Your task to perform on an android device: What's the news in Laos? Image 0: 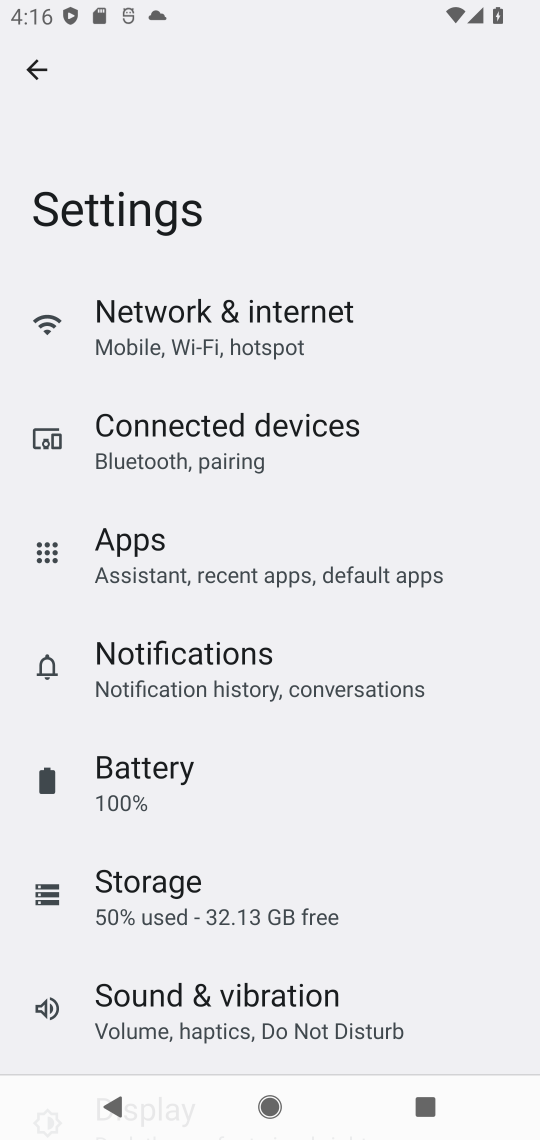
Step 0: press home button
Your task to perform on an android device: What's the news in Laos? Image 1: 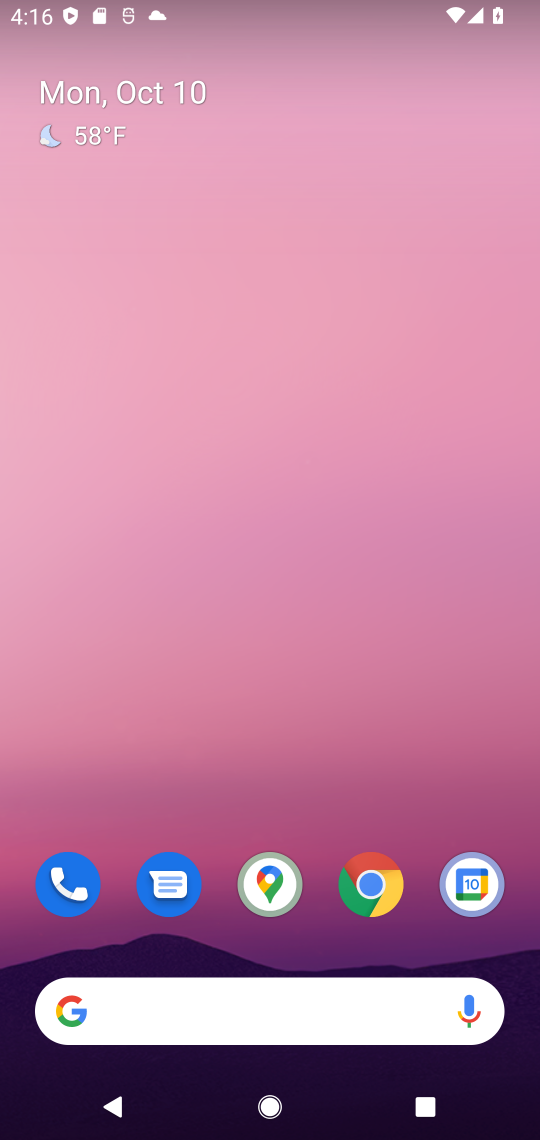
Step 1: click (367, 882)
Your task to perform on an android device: What's the news in Laos? Image 2: 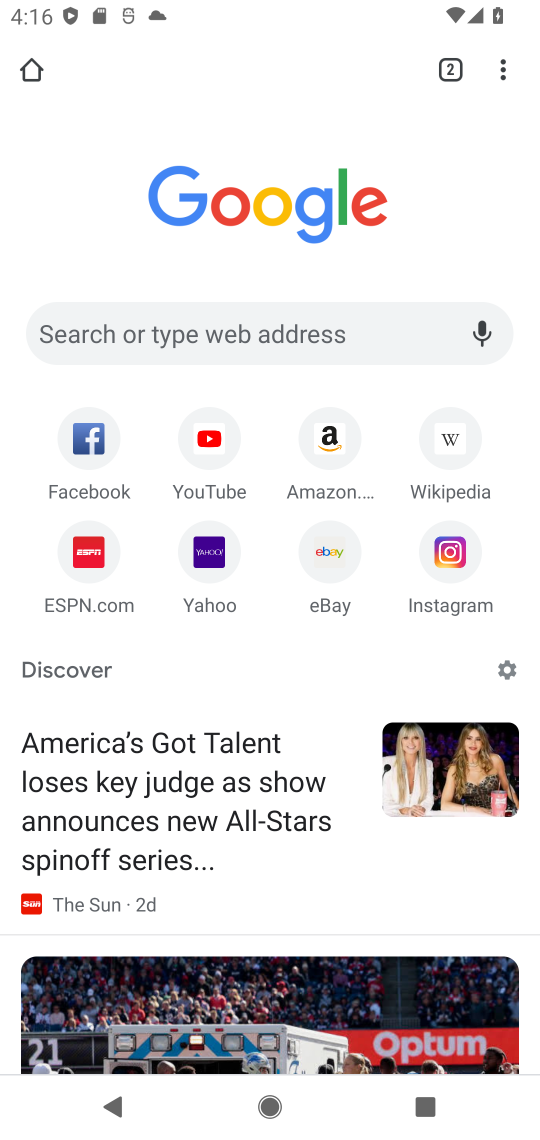
Step 2: click (240, 337)
Your task to perform on an android device: What's the news in Laos? Image 3: 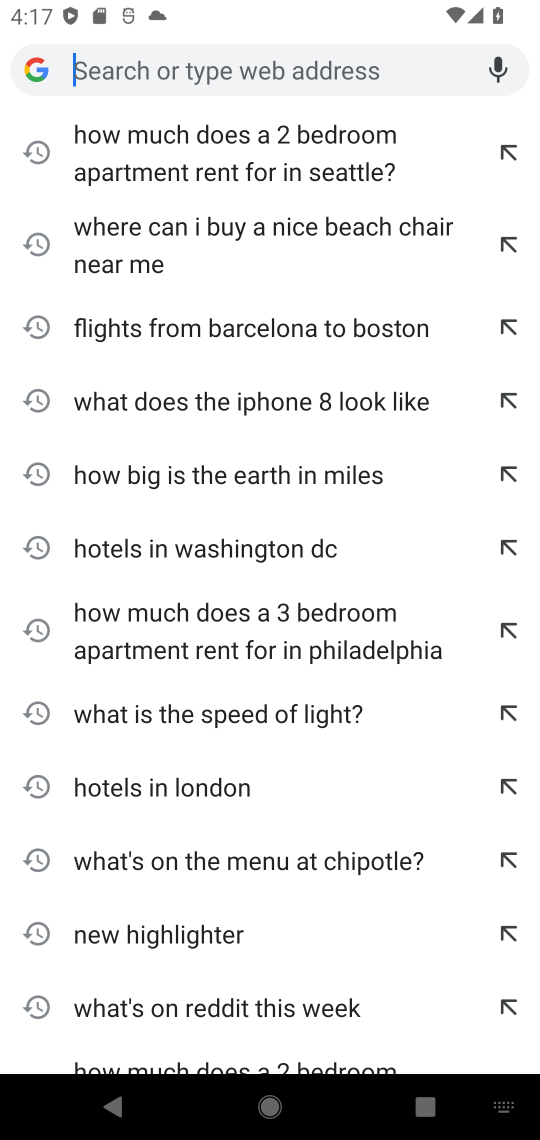
Step 3: type "What's the news in Laos?"
Your task to perform on an android device: What's the news in Laos? Image 4: 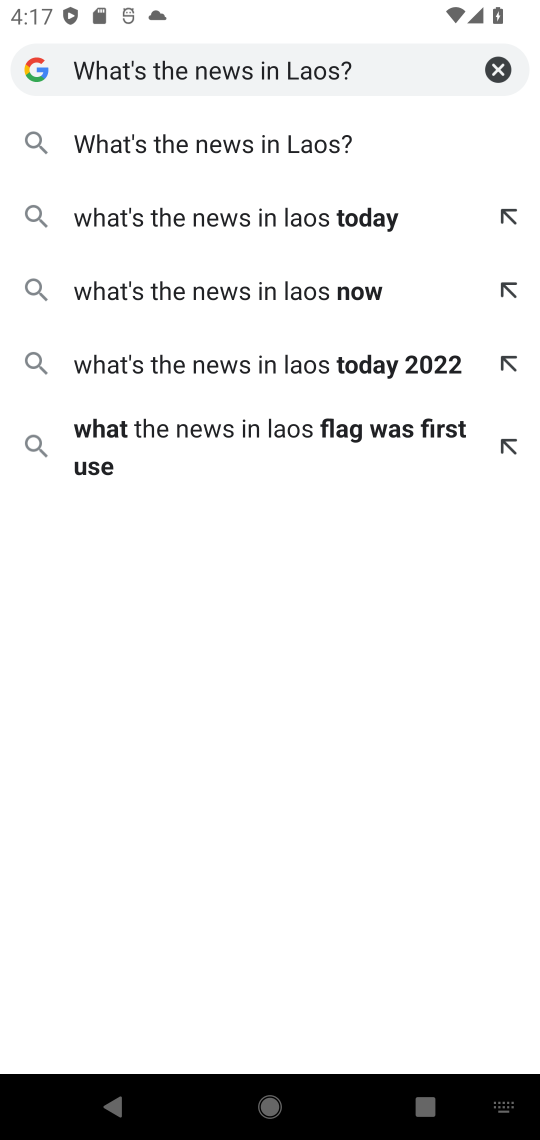
Step 4: click (288, 153)
Your task to perform on an android device: What's the news in Laos? Image 5: 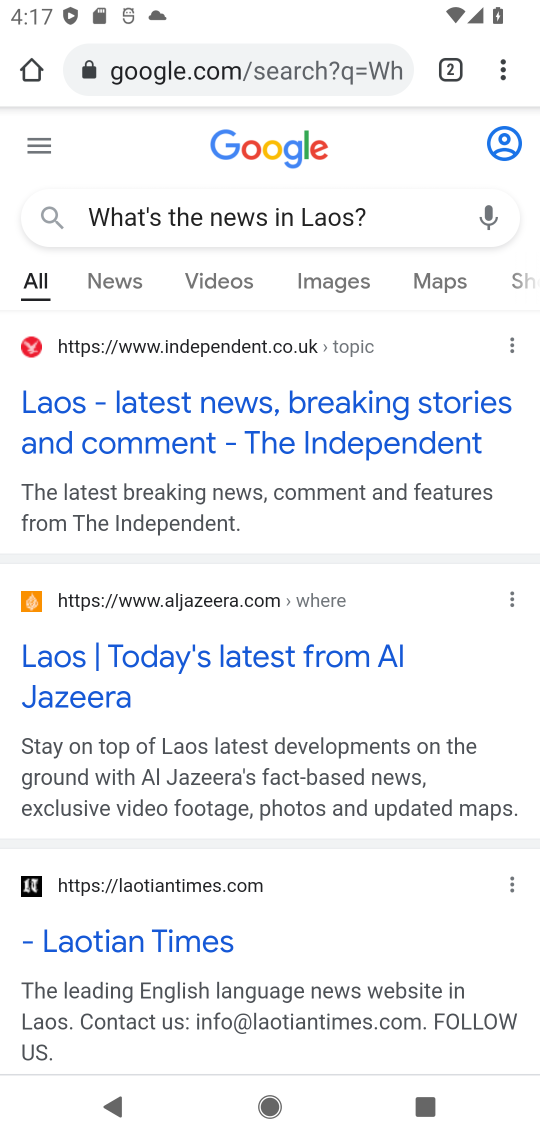
Step 5: click (202, 426)
Your task to perform on an android device: What's the news in Laos? Image 6: 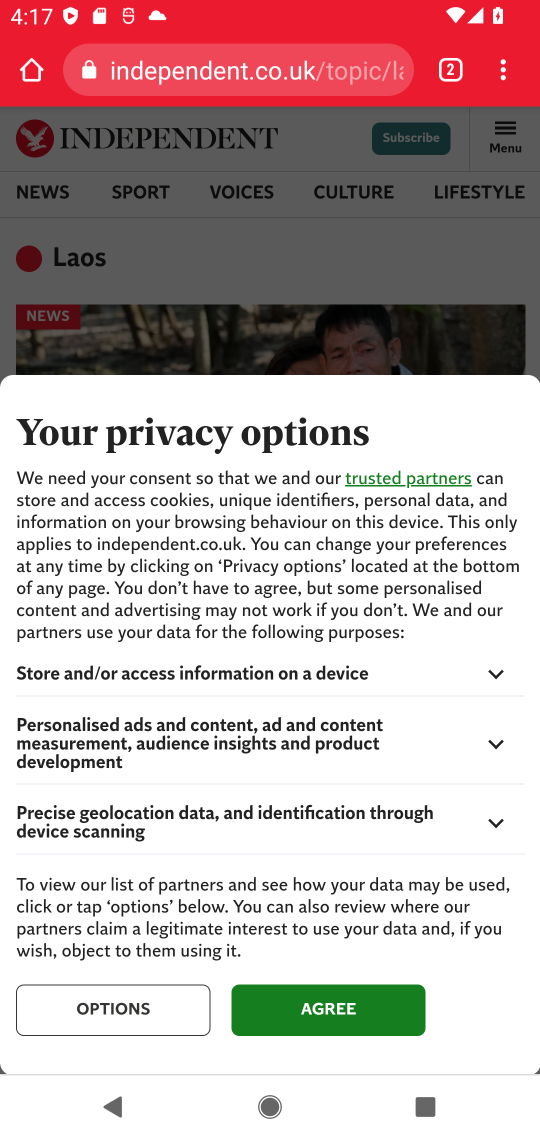
Step 6: task complete